Your task to perform on an android device: What's the news in Argentina? Image 0: 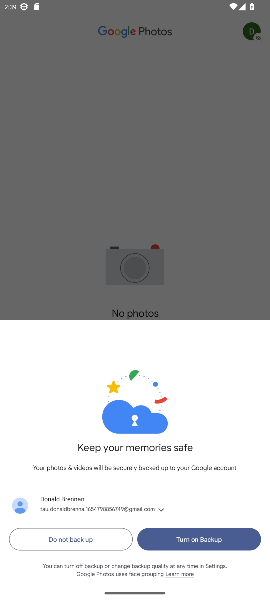
Step 0: press home button
Your task to perform on an android device: What's the news in Argentina? Image 1: 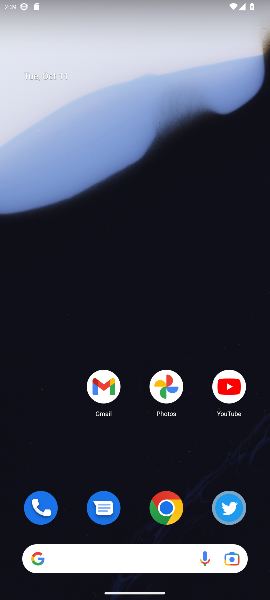
Step 1: click (169, 504)
Your task to perform on an android device: What's the news in Argentina? Image 2: 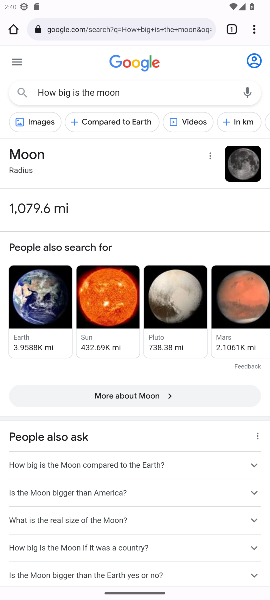
Step 2: click (149, 27)
Your task to perform on an android device: What's the news in Argentina? Image 3: 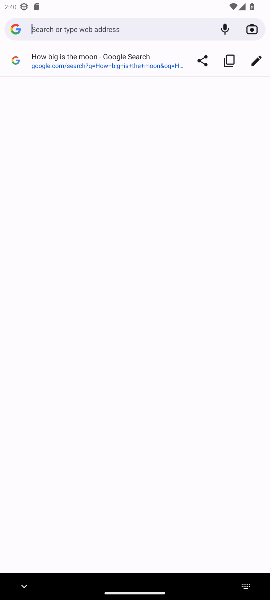
Step 3: type "Argentina"
Your task to perform on an android device: What's the news in Argentina? Image 4: 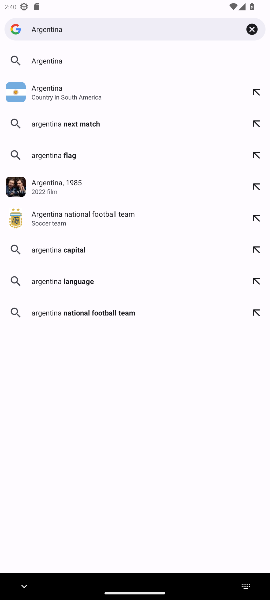
Step 4: press enter
Your task to perform on an android device: What's the news in Argentina? Image 5: 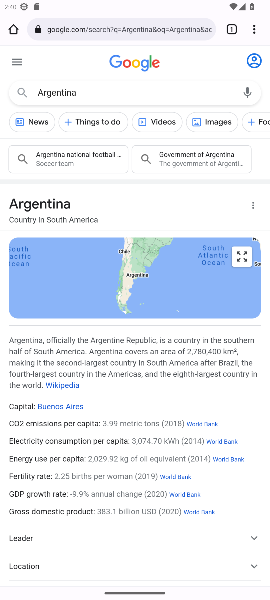
Step 5: click (34, 124)
Your task to perform on an android device: What's the news in Argentina? Image 6: 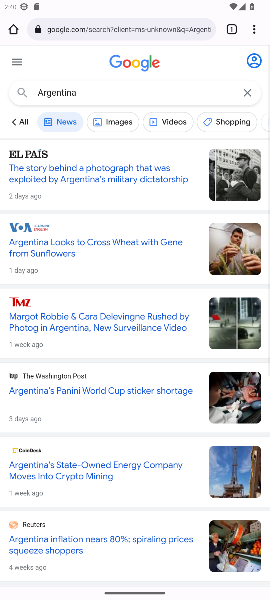
Step 6: task complete